Your task to perform on an android device: Turn off the flashlight Image 0: 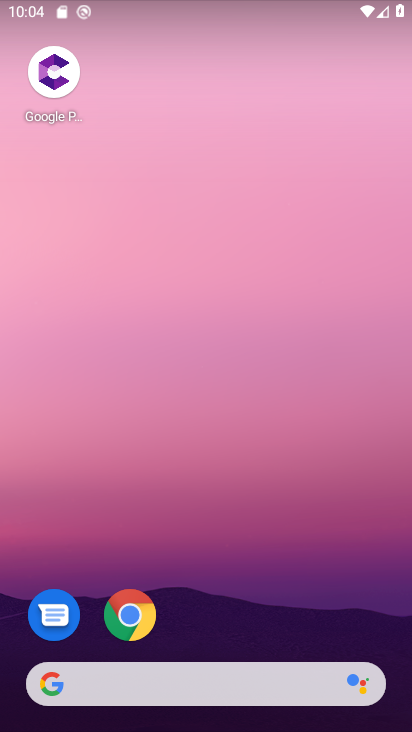
Step 0: drag from (347, 8) to (352, 520)
Your task to perform on an android device: Turn off the flashlight Image 1: 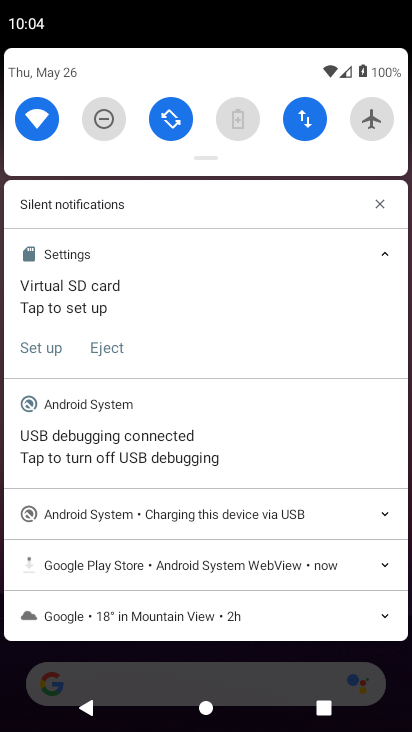
Step 1: drag from (274, 140) to (260, 648)
Your task to perform on an android device: Turn off the flashlight Image 2: 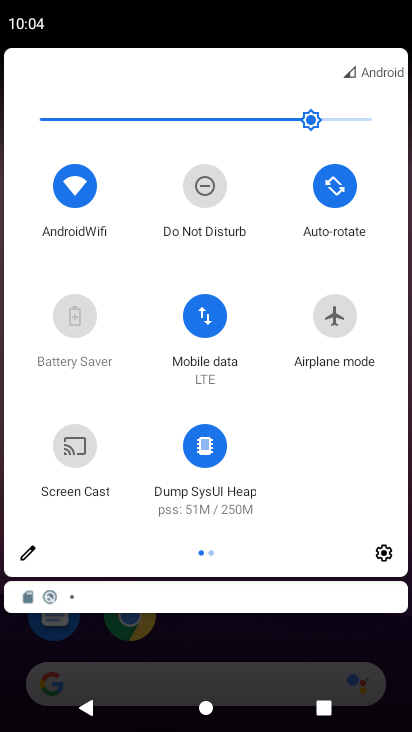
Step 2: click (29, 557)
Your task to perform on an android device: Turn off the flashlight Image 3: 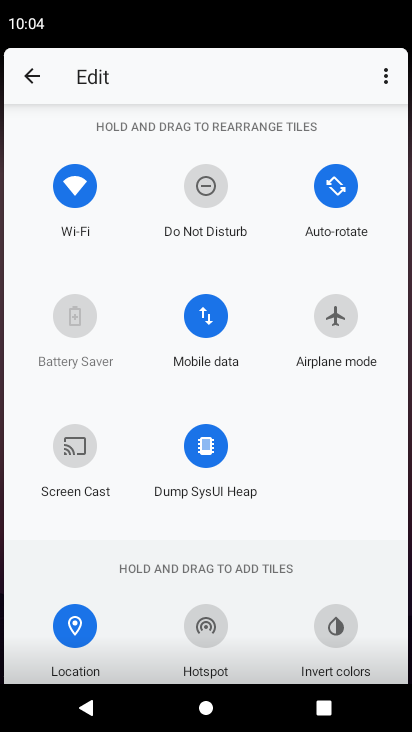
Step 3: task complete